Your task to perform on an android device: change the upload size in google photos Image 0: 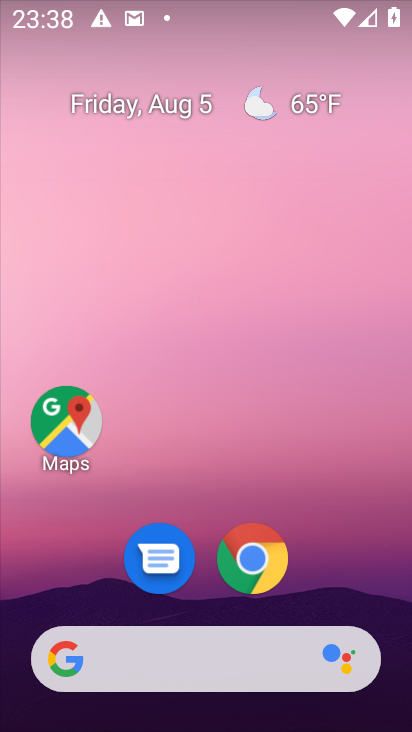
Step 0: press home button
Your task to perform on an android device: change the upload size in google photos Image 1: 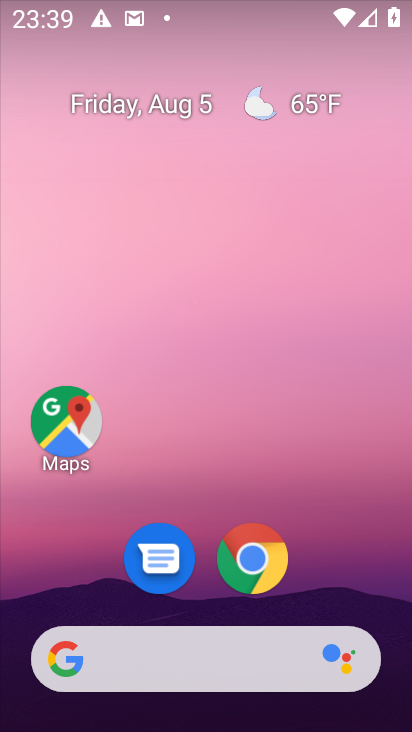
Step 1: drag from (343, 571) to (366, 198)
Your task to perform on an android device: change the upload size in google photos Image 2: 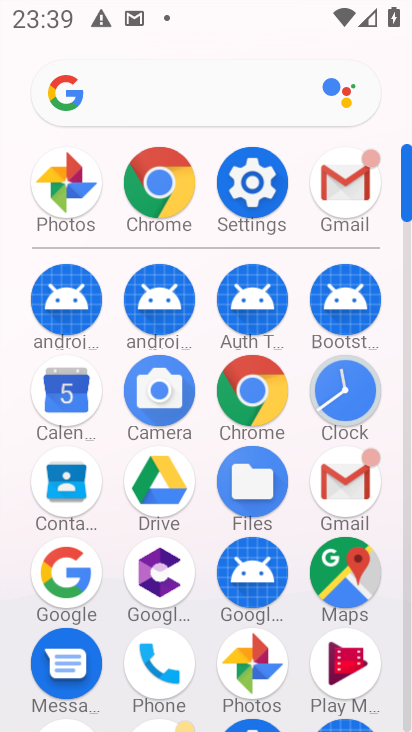
Step 2: click (247, 658)
Your task to perform on an android device: change the upload size in google photos Image 3: 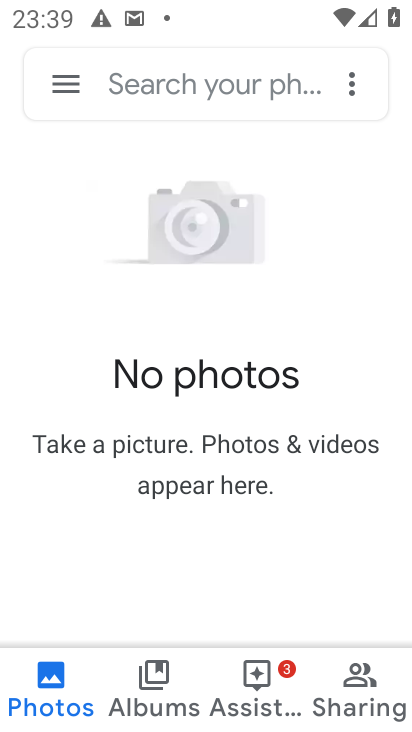
Step 3: click (70, 78)
Your task to perform on an android device: change the upload size in google photos Image 4: 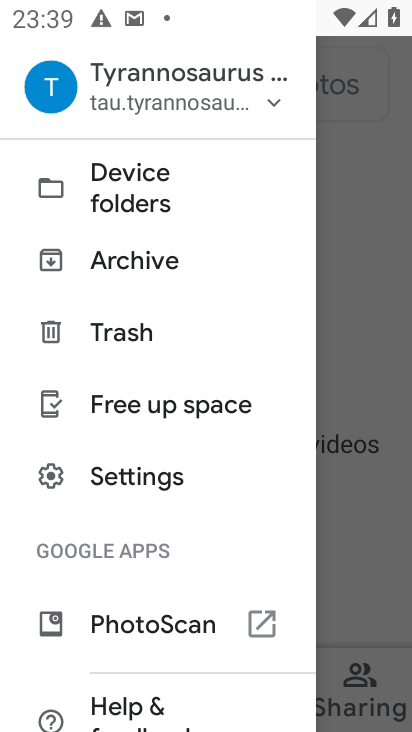
Step 4: drag from (226, 502) to (238, 416)
Your task to perform on an android device: change the upload size in google photos Image 5: 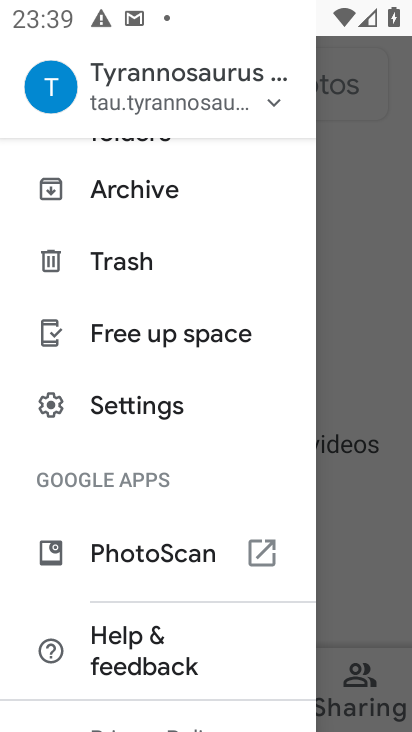
Step 5: click (198, 423)
Your task to perform on an android device: change the upload size in google photos Image 6: 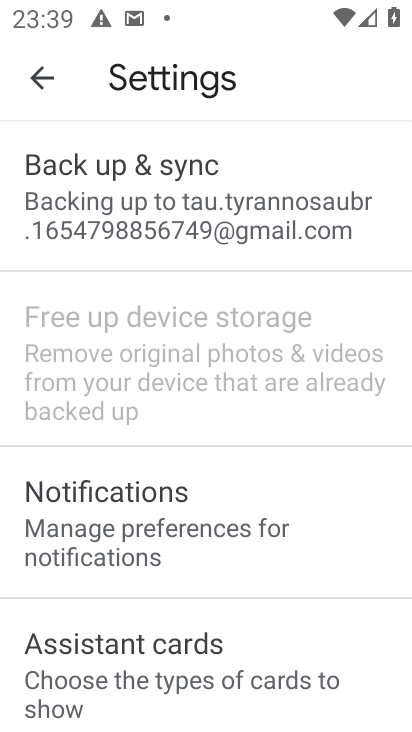
Step 6: click (226, 229)
Your task to perform on an android device: change the upload size in google photos Image 7: 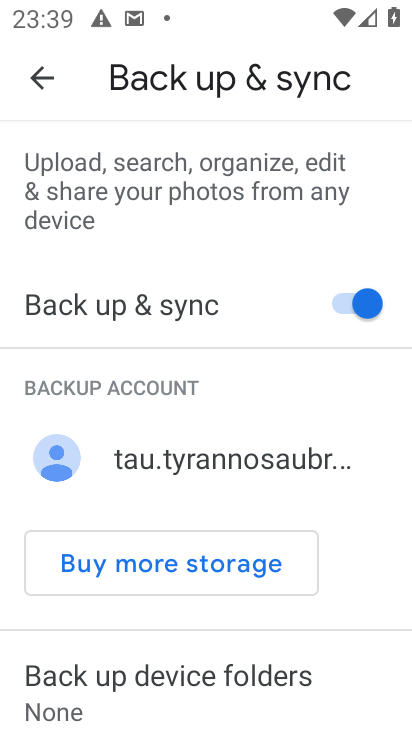
Step 7: drag from (367, 533) to (370, 426)
Your task to perform on an android device: change the upload size in google photos Image 8: 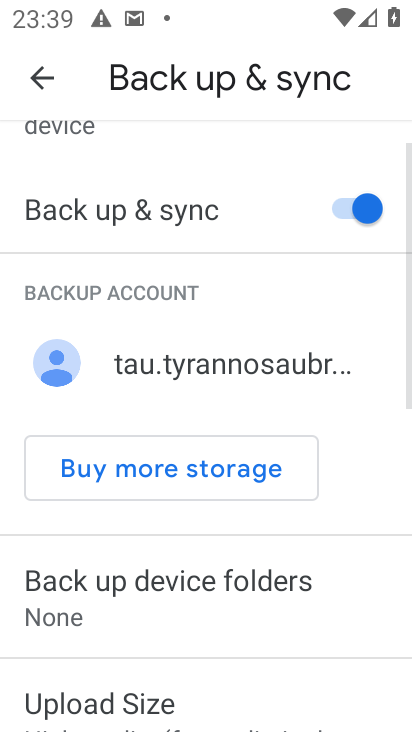
Step 8: drag from (379, 516) to (379, 405)
Your task to perform on an android device: change the upload size in google photos Image 9: 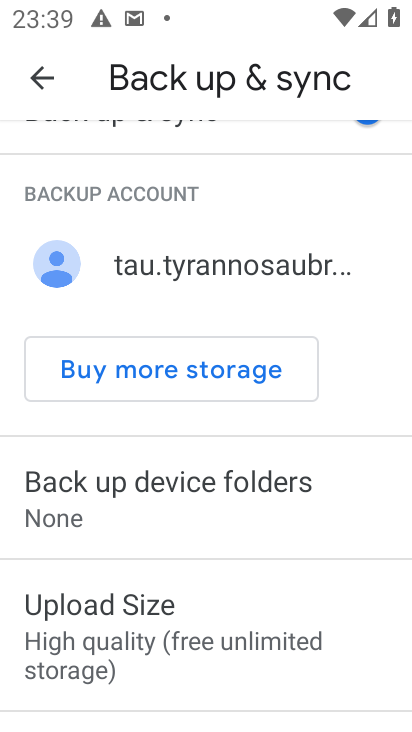
Step 9: drag from (374, 520) to (366, 403)
Your task to perform on an android device: change the upload size in google photos Image 10: 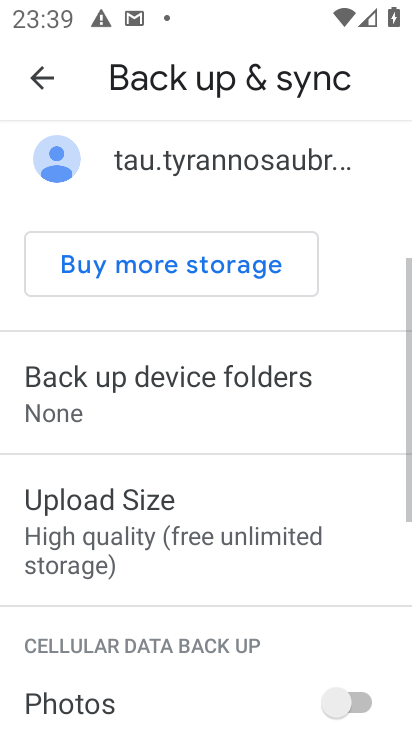
Step 10: click (322, 516)
Your task to perform on an android device: change the upload size in google photos Image 11: 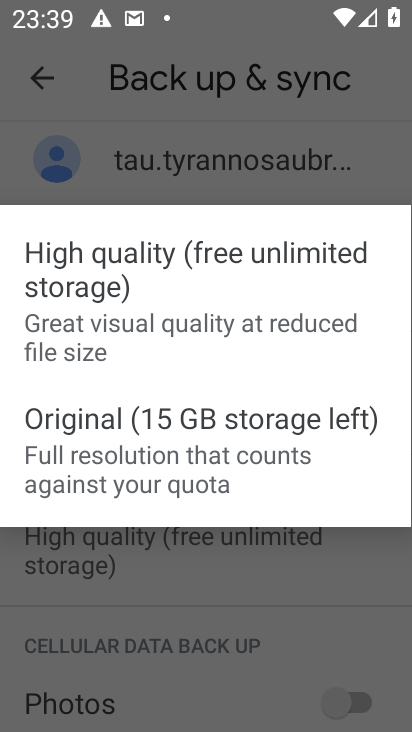
Step 11: click (235, 446)
Your task to perform on an android device: change the upload size in google photos Image 12: 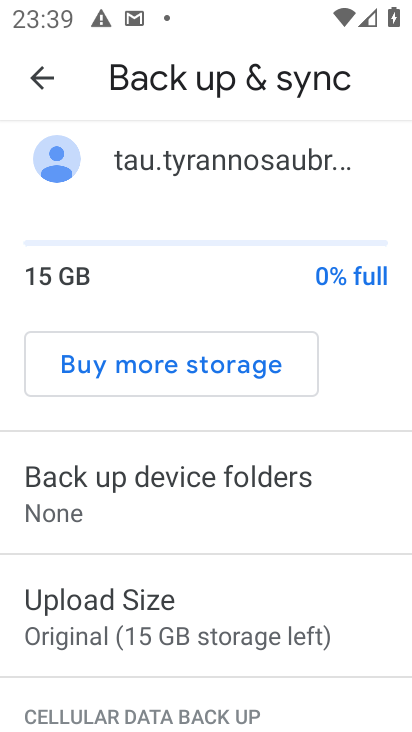
Step 12: task complete